Your task to perform on an android device: Search for Mexican restaurants on Maps Image 0: 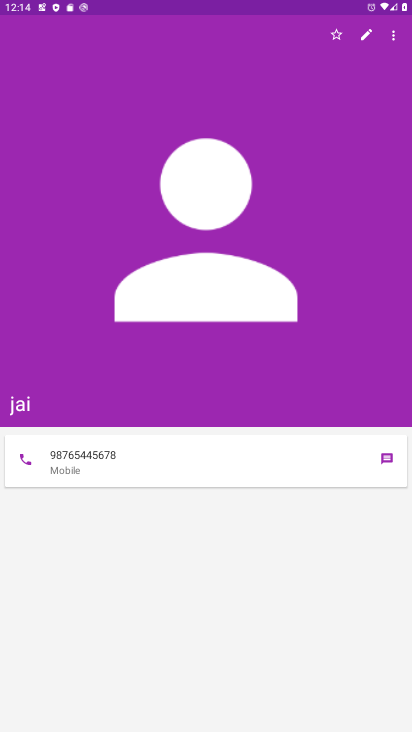
Step 0: press home button
Your task to perform on an android device: Search for Mexican restaurants on Maps Image 1: 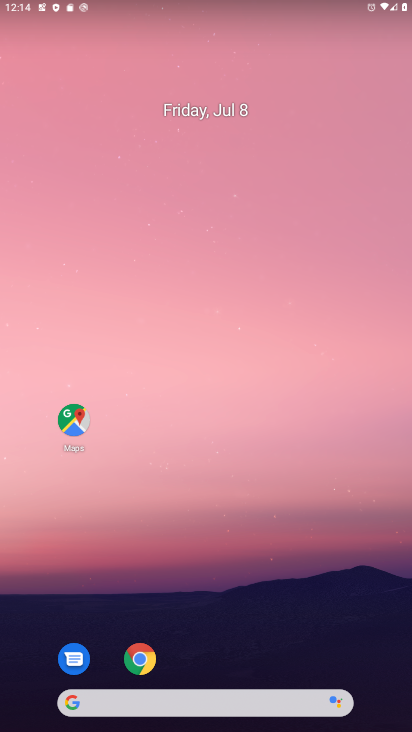
Step 1: drag from (264, 568) to (218, 166)
Your task to perform on an android device: Search for Mexican restaurants on Maps Image 2: 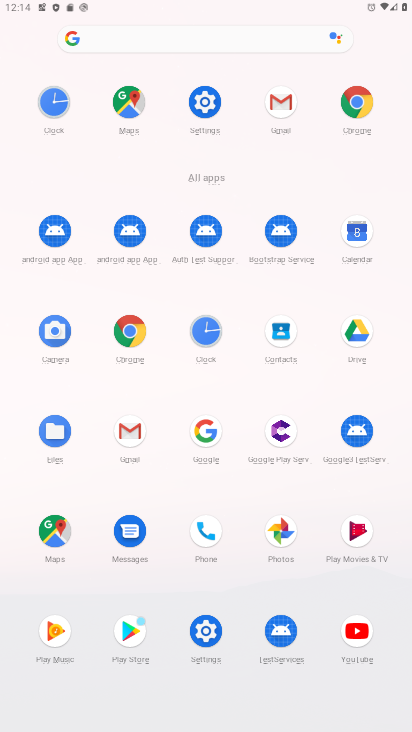
Step 2: click (119, 102)
Your task to perform on an android device: Search for Mexican restaurants on Maps Image 3: 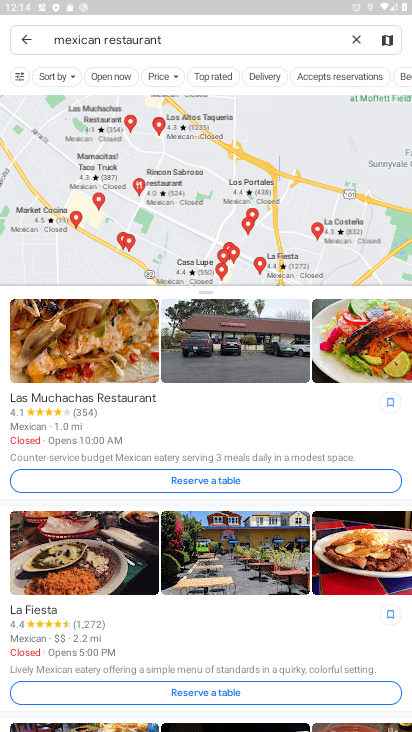
Step 3: task complete